Your task to perform on an android device: open a new tab in the chrome app Image 0: 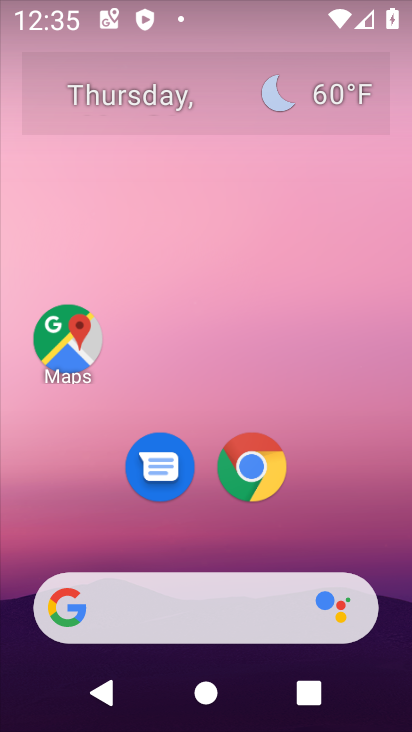
Step 0: click (244, 483)
Your task to perform on an android device: open a new tab in the chrome app Image 1: 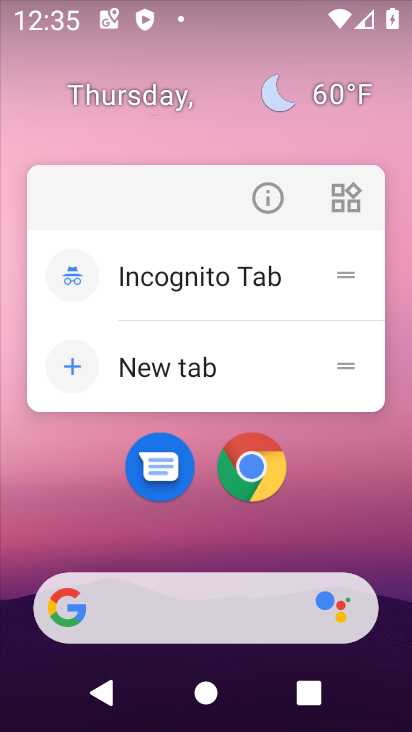
Step 1: click (256, 466)
Your task to perform on an android device: open a new tab in the chrome app Image 2: 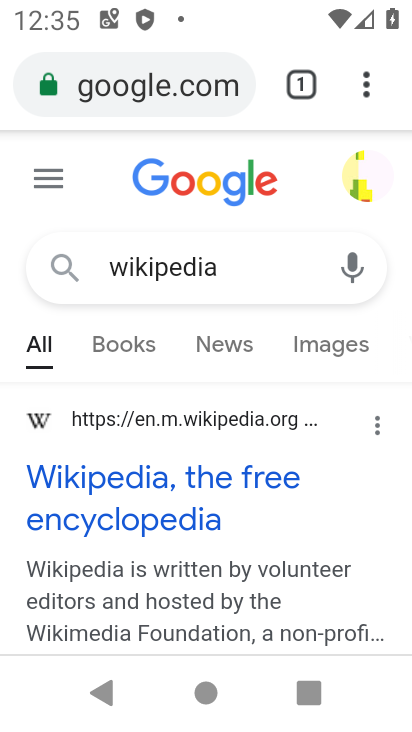
Step 2: click (372, 93)
Your task to perform on an android device: open a new tab in the chrome app Image 3: 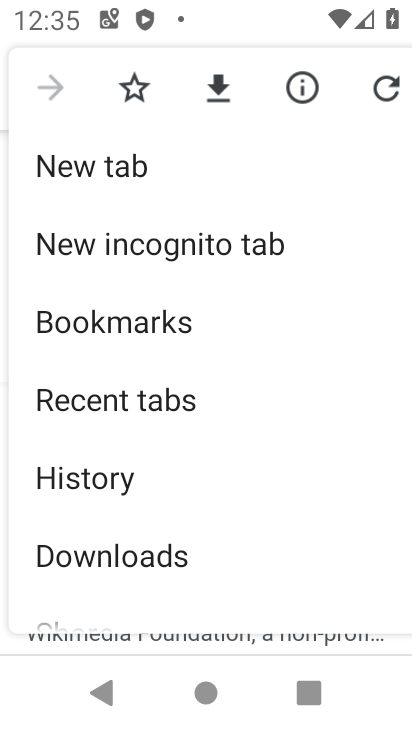
Step 3: click (158, 171)
Your task to perform on an android device: open a new tab in the chrome app Image 4: 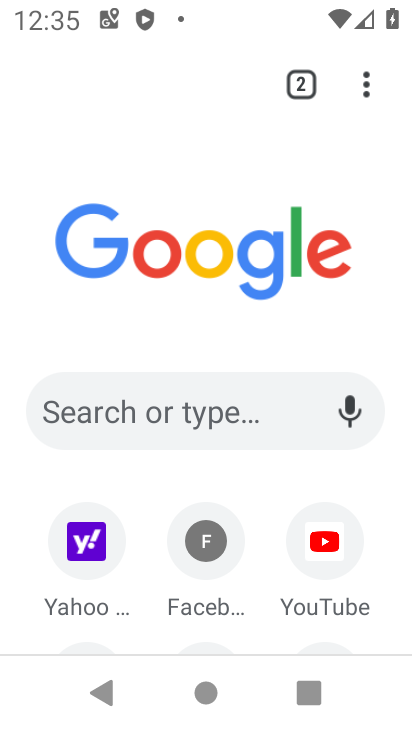
Step 4: task complete